Your task to perform on an android device: turn on notifications settings in the gmail app Image 0: 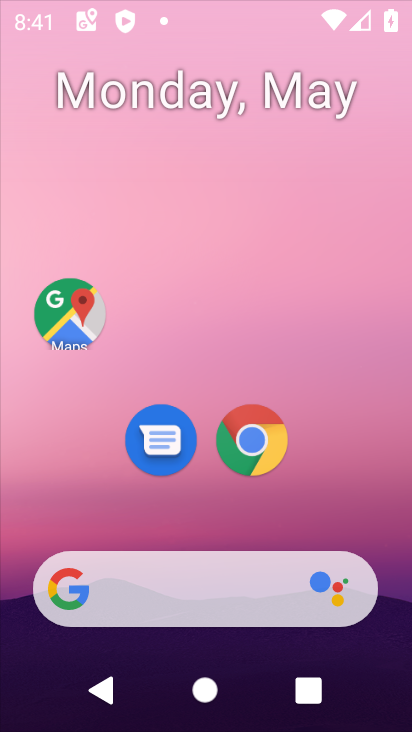
Step 0: press home button
Your task to perform on an android device: turn on notifications settings in the gmail app Image 1: 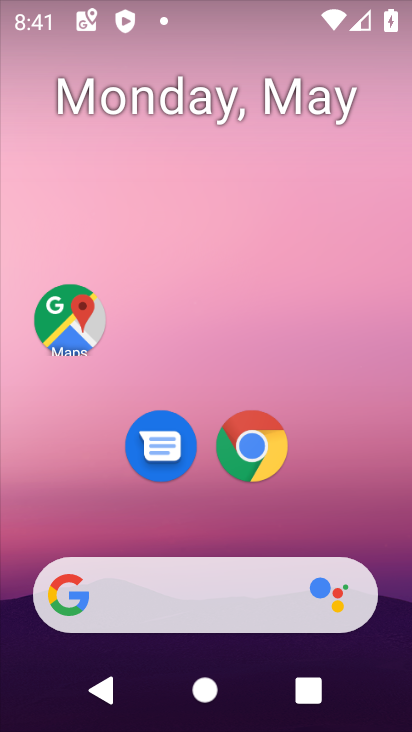
Step 1: drag from (207, 535) to (272, 1)
Your task to perform on an android device: turn on notifications settings in the gmail app Image 2: 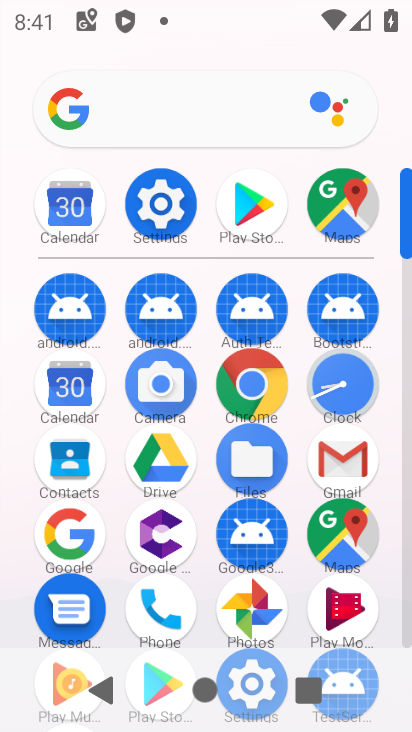
Step 2: click (342, 449)
Your task to perform on an android device: turn on notifications settings in the gmail app Image 3: 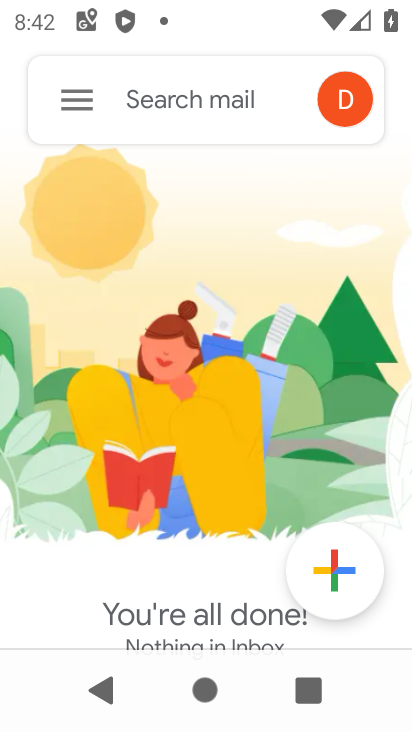
Step 3: click (78, 95)
Your task to perform on an android device: turn on notifications settings in the gmail app Image 4: 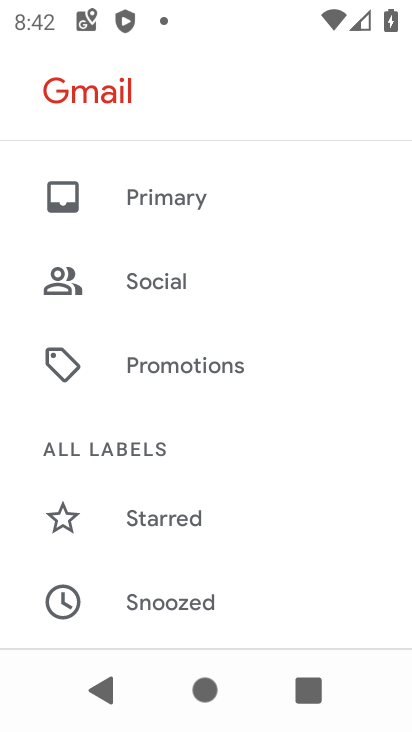
Step 4: drag from (168, 589) to (196, 22)
Your task to perform on an android device: turn on notifications settings in the gmail app Image 5: 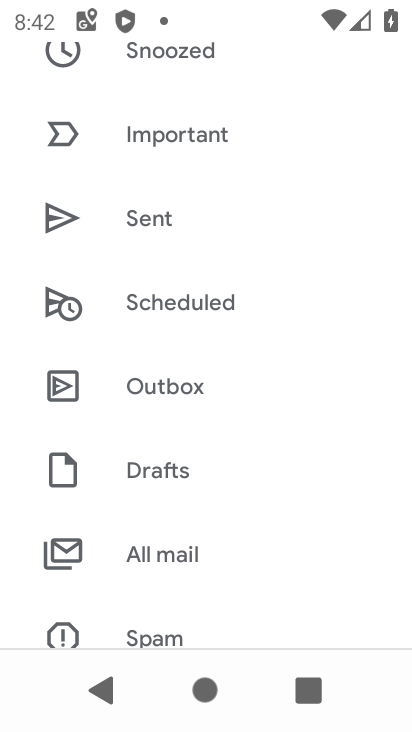
Step 5: drag from (189, 599) to (203, 157)
Your task to perform on an android device: turn on notifications settings in the gmail app Image 6: 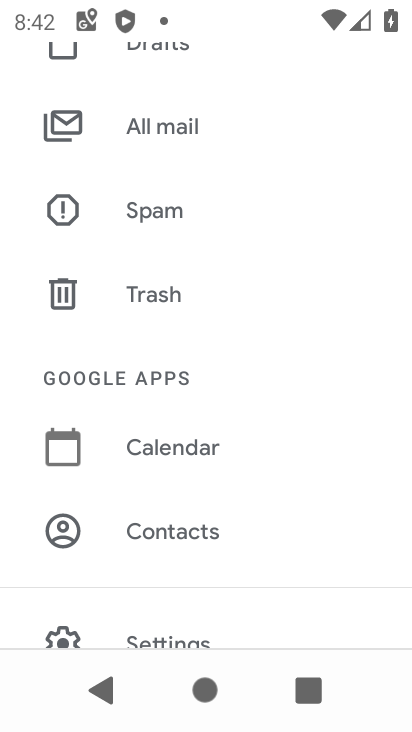
Step 6: drag from (229, 590) to (229, 68)
Your task to perform on an android device: turn on notifications settings in the gmail app Image 7: 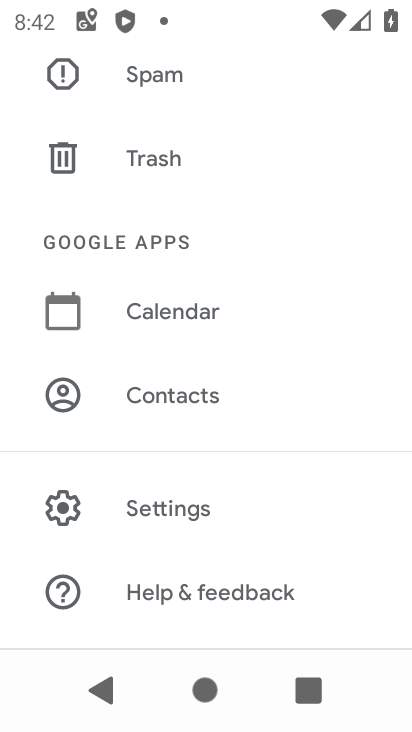
Step 7: click (221, 499)
Your task to perform on an android device: turn on notifications settings in the gmail app Image 8: 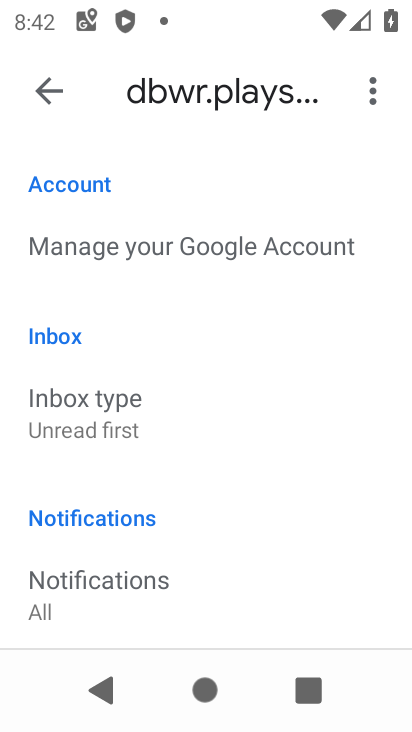
Step 8: click (53, 95)
Your task to perform on an android device: turn on notifications settings in the gmail app Image 9: 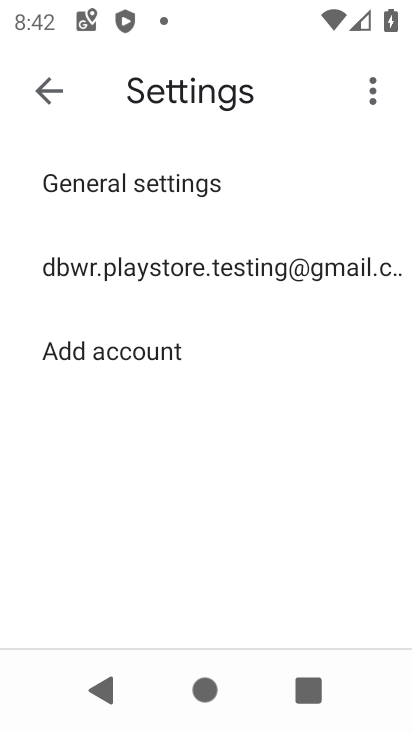
Step 9: click (142, 180)
Your task to perform on an android device: turn on notifications settings in the gmail app Image 10: 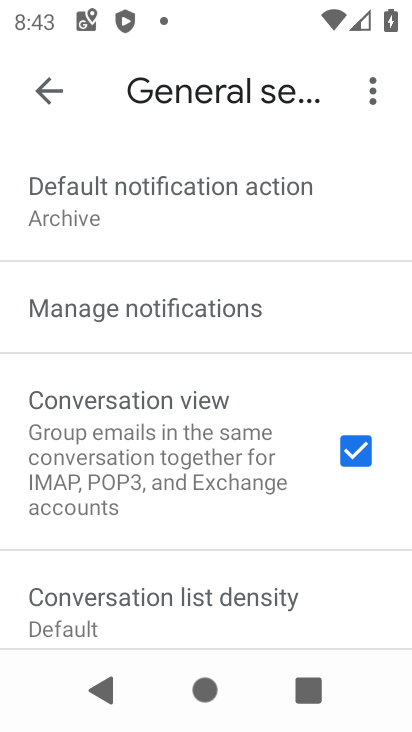
Step 10: click (195, 319)
Your task to perform on an android device: turn on notifications settings in the gmail app Image 11: 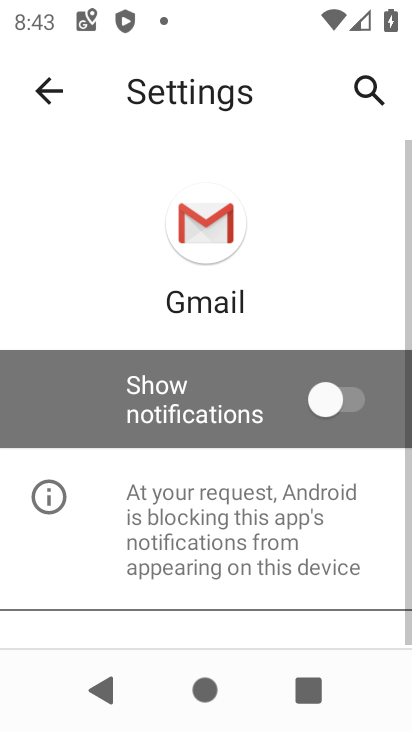
Step 11: click (325, 399)
Your task to perform on an android device: turn on notifications settings in the gmail app Image 12: 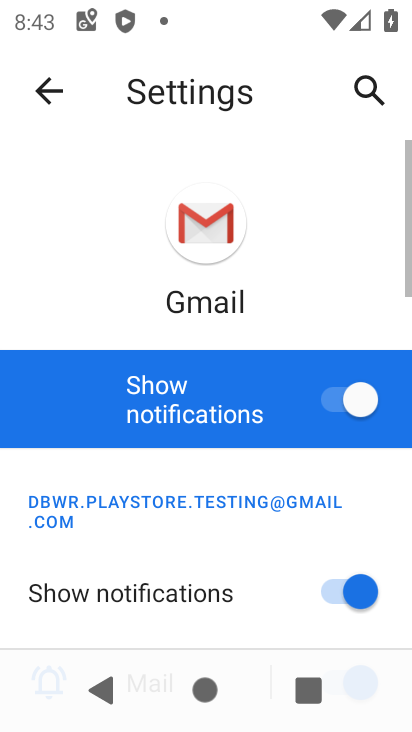
Step 12: task complete